Your task to perform on an android device: turn on translation in the chrome app Image 0: 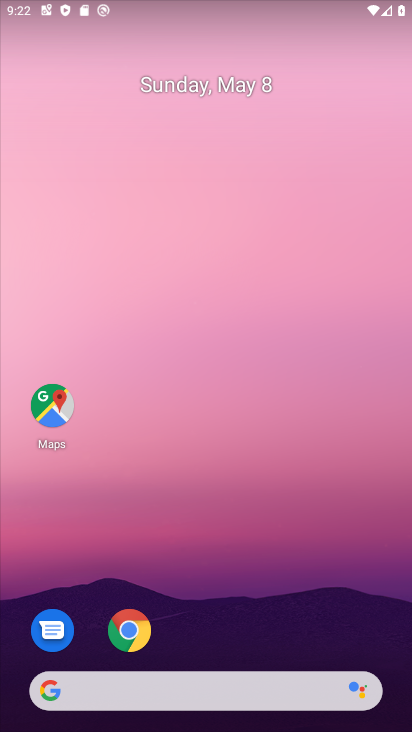
Step 0: drag from (146, 700) to (296, 144)
Your task to perform on an android device: turn on translation in the chrome app Image 1: 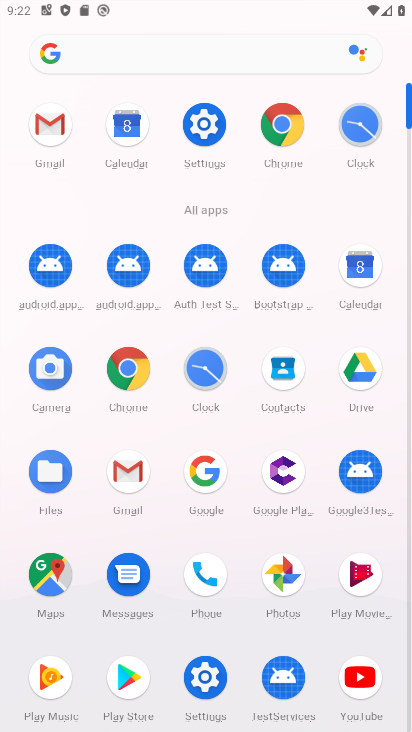
Step 1: click (276, 127)
Your task to perform on an android device: turn on translation in the chrome app Image 2: 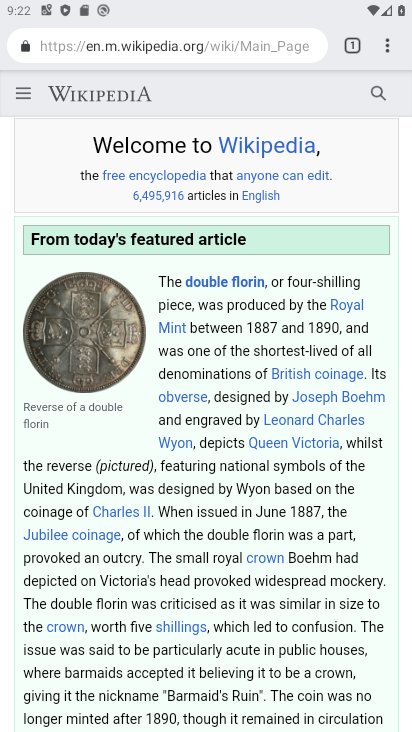
Step 2: drag from (387, 45) to (227, 548)
Your task to perform on an android device: turn on translation in the chrome app Image 3: 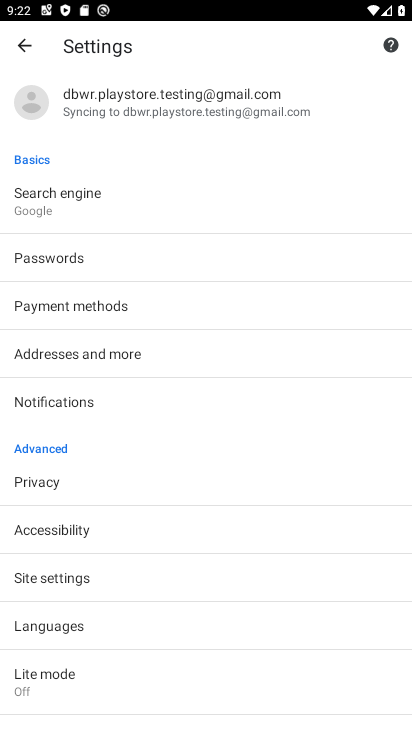
Step 3: click (47, 626)
Your task to perform on an android device: turn on translation in the chrome app Image 4: 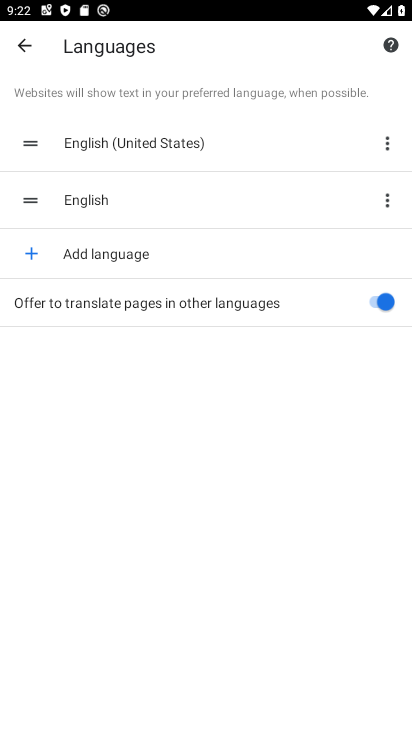
Step 4: task complete